Your task to perform on an android device: install app "Etsy: Buy & Sell Unique Items" Image 0: 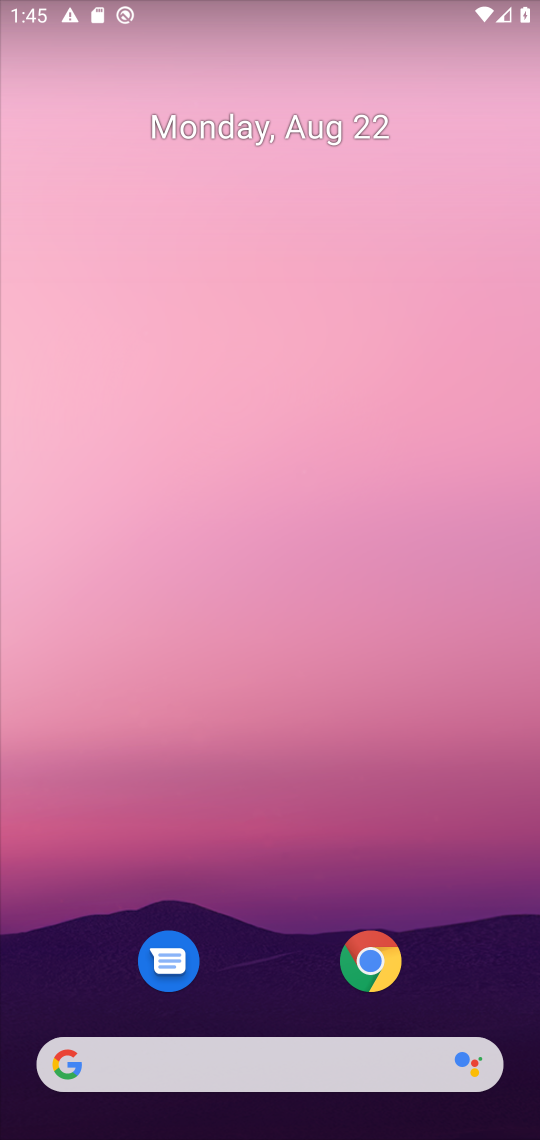
Step 0: press home button
Your task to perform on an android device: install app "Etsy: Buy & Sell Unique Items" Image 1: 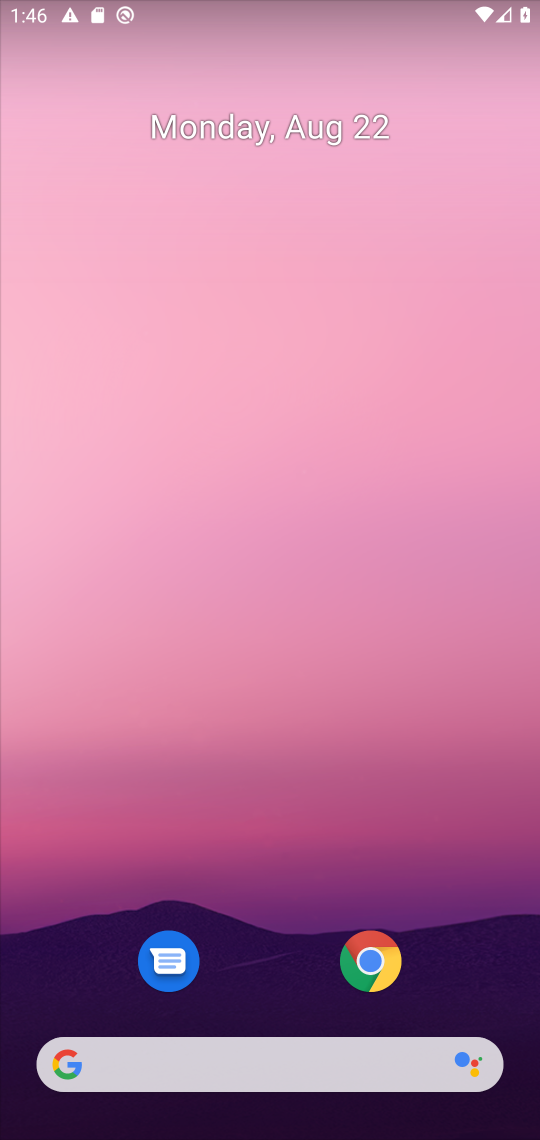
Step 1: drag from (462, 940) to (486, 88)
Your task to perform on an android device: install app "Etsy: Buy & Sell Unique Items" Image 2: 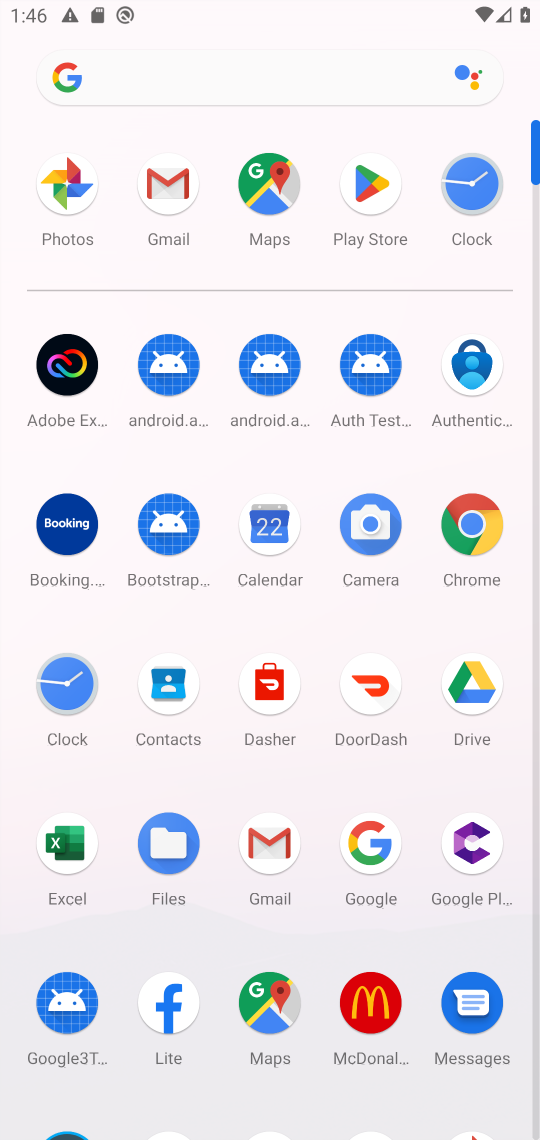
Step 2: click (368, 166)
Your task to perform on an android device: install app "Etsy: Buy & Sell Unique Items" Image 3: 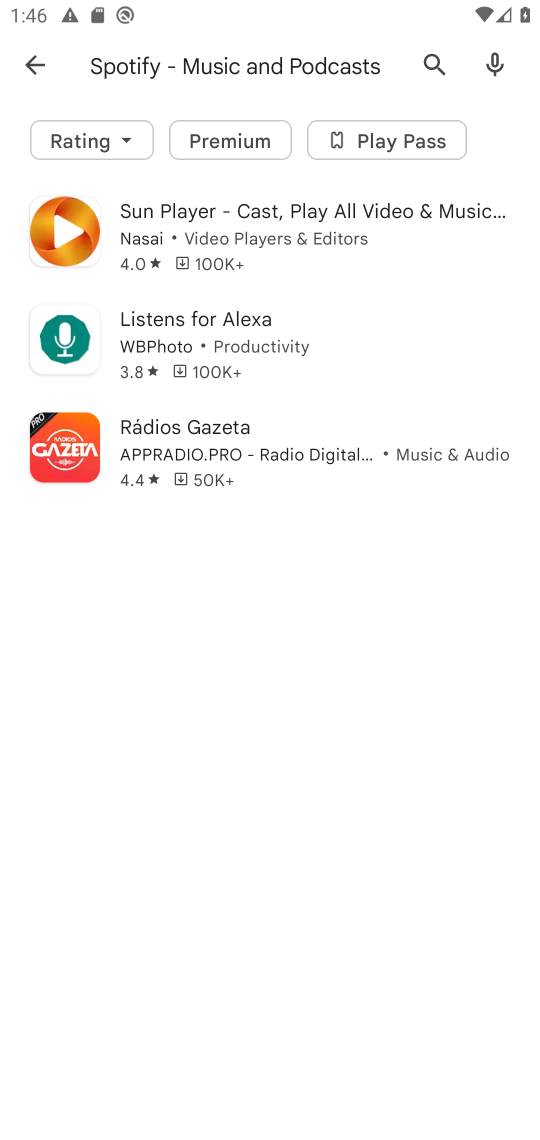
Step 3: press back button
Your task to perform on an android device: install app "Etsy: Buy & Sell Unique Items" Image 4: 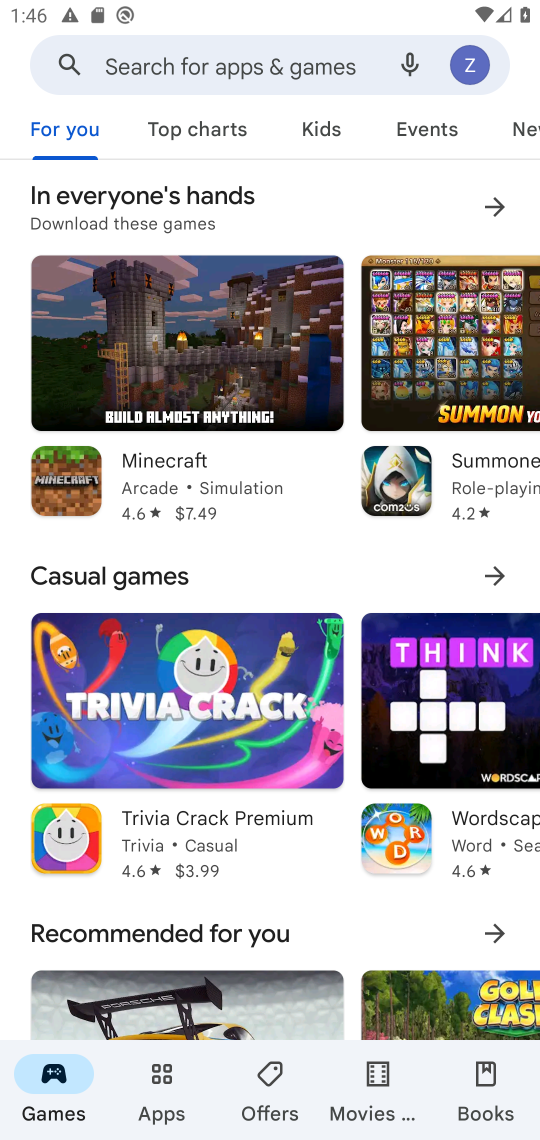
Step 4: click (287, 66)
Your task to perform on an android device: install app "Etsy: Buy & Sell Unique Items" Image 5: 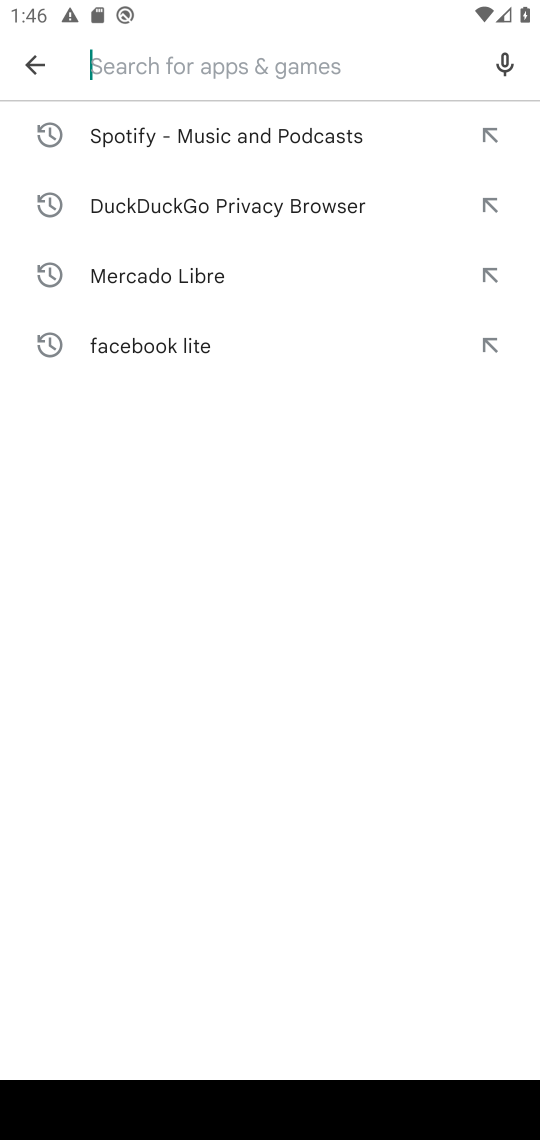
Step 5: type "Etsy: Buy & Sell Unique Items"
Your task to perform on an android device: install app "Etsy: Buy & Sell Unique Items" Image 6: 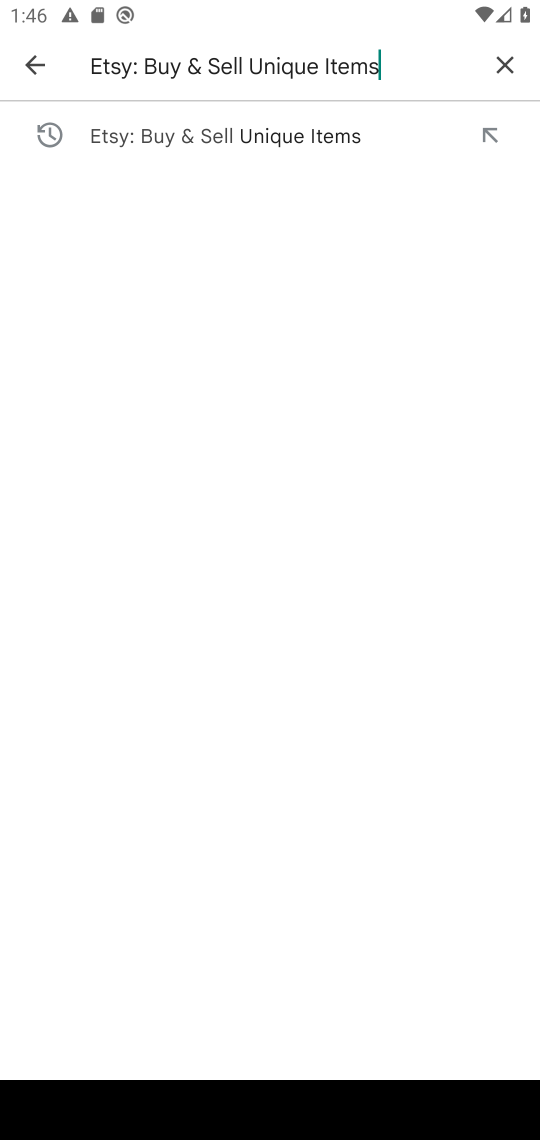
Step 6: press enter
Your task to perform on an android device: install app "Etsy: Buy & Sell Unique Items" Image 7: 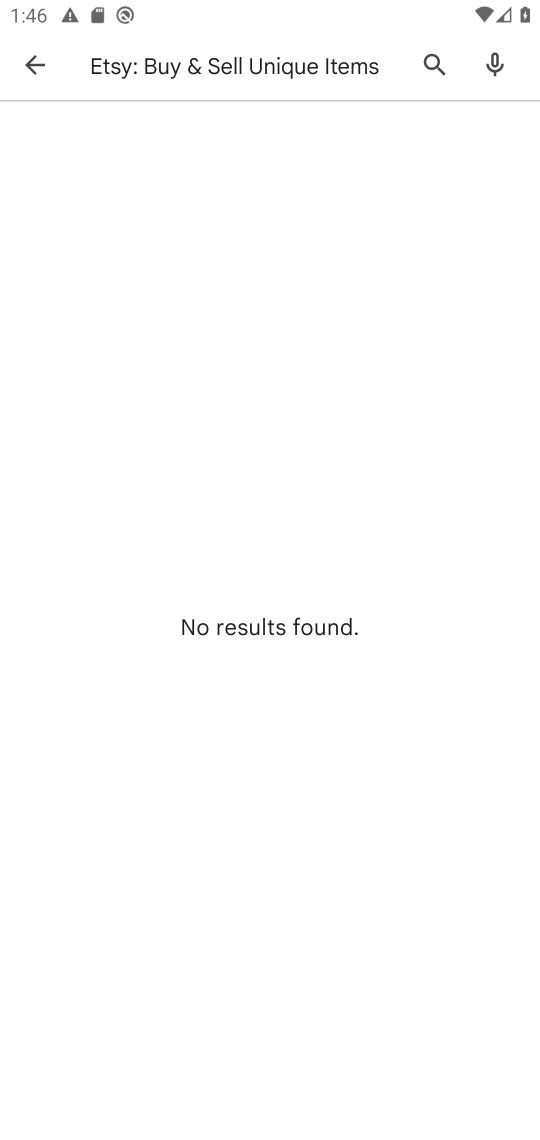
Step 7: task complete